Your task to perform on an android device: Go to settings Image 0: 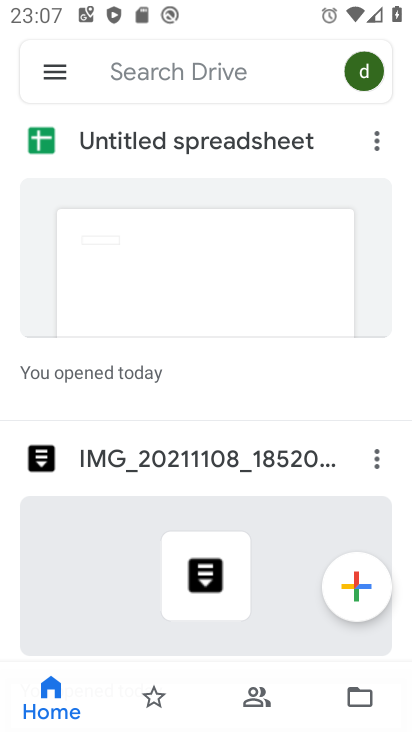
Step 0: press home button
Your task to perform on an android device: Go to settings Image 1: 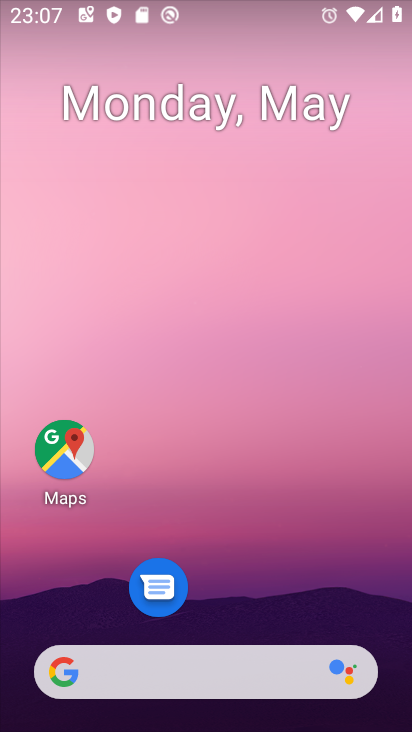
Step 1: drag from (204, 646) to (271, 20)
Your task to perform on an android device: Go to settings Image 2: 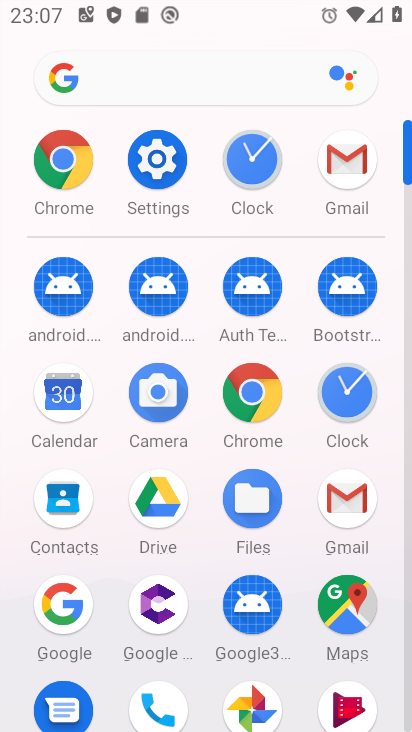
Step 2: click (173, 166)
Your task to perform on an android device: Go to settings Image 3: 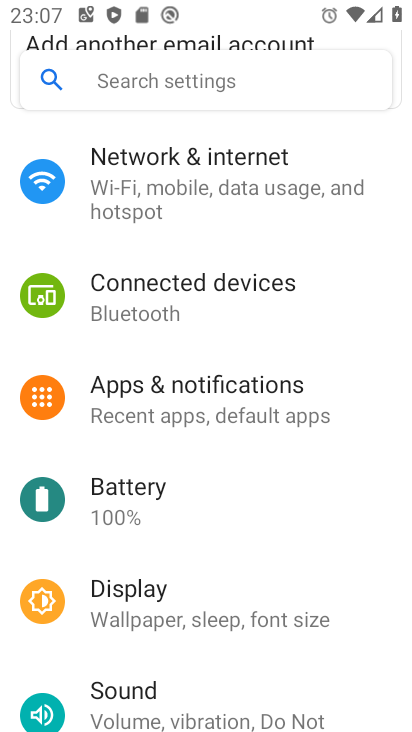
Step 3: task complete